Your task to perform on an android device: Search for 12ft 120W LED tube light on home depot Image 0: 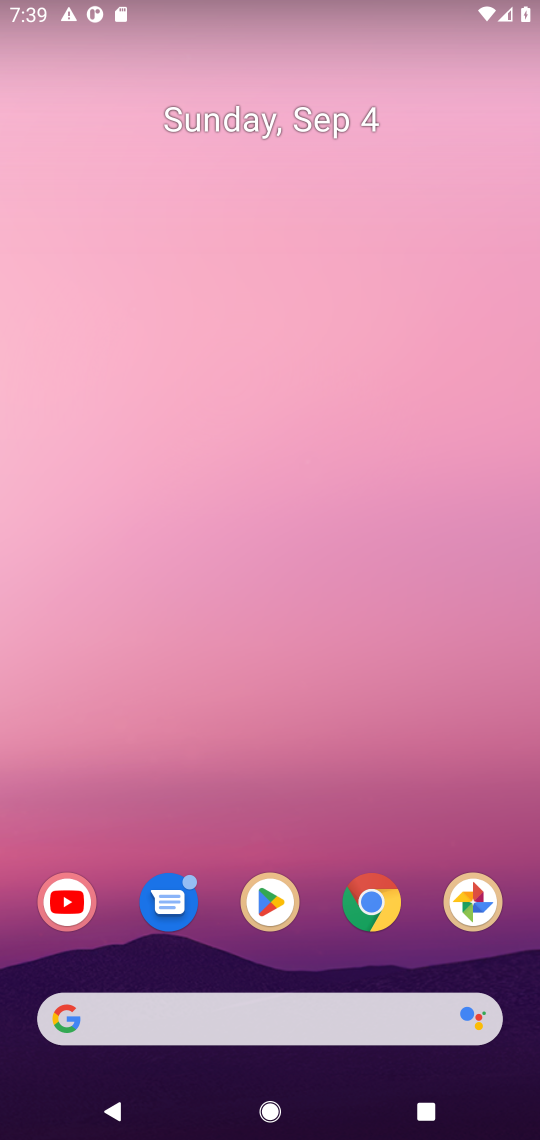
Step 0: click (249, 897)
Your task to perform on an android device: Search for 12ft 120W LED tube light on home depot Image 1: 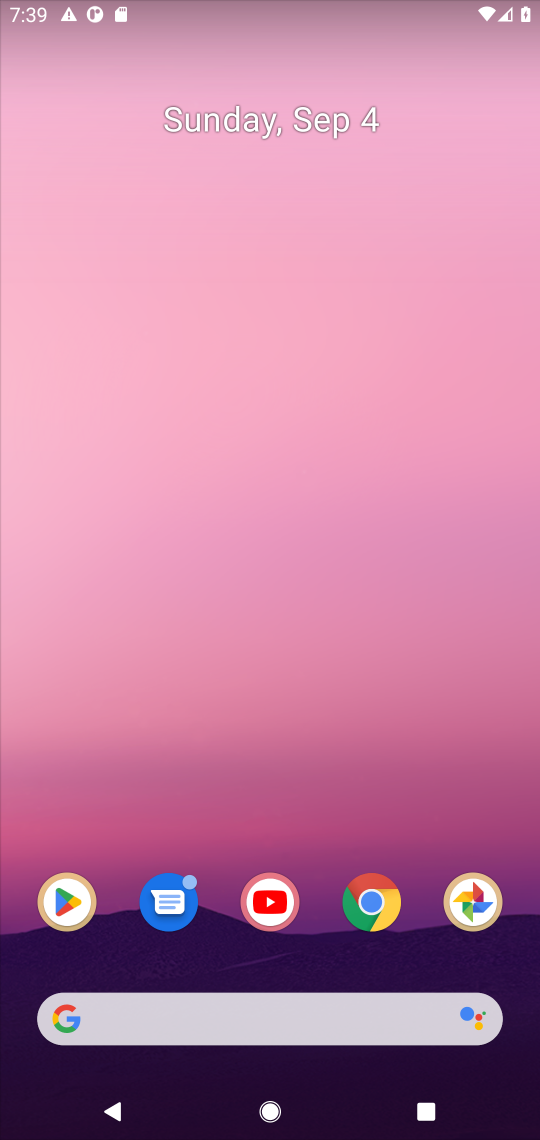
Step 1: click (261, 904)
Your task to perform on an android device: Search for 12ft 120W LED tube light on home depot Image 2: 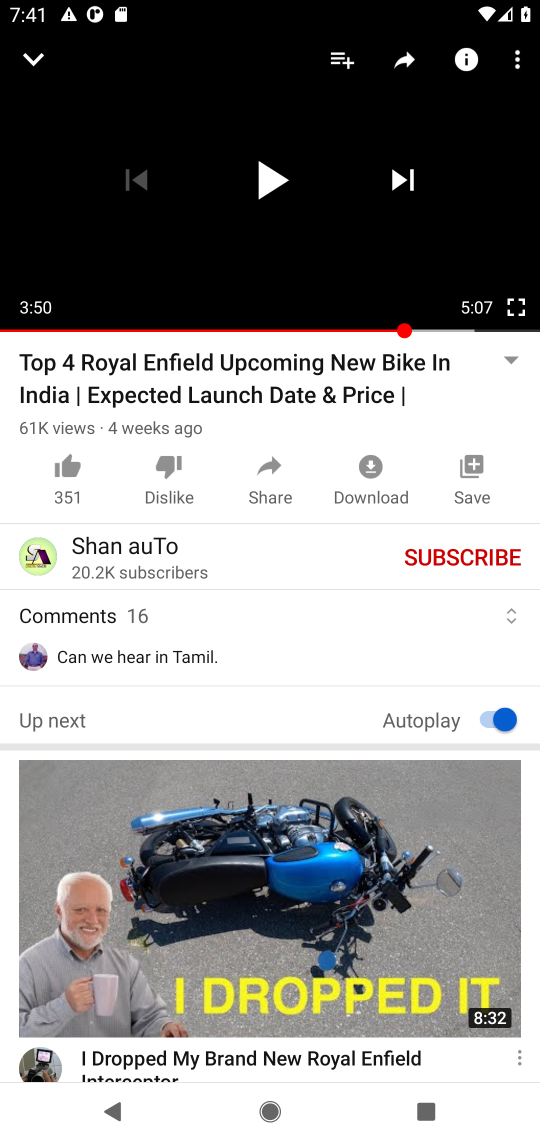
Step 2: task complete